Your task to perform on an android device: Go to accessibility settings Image 0: 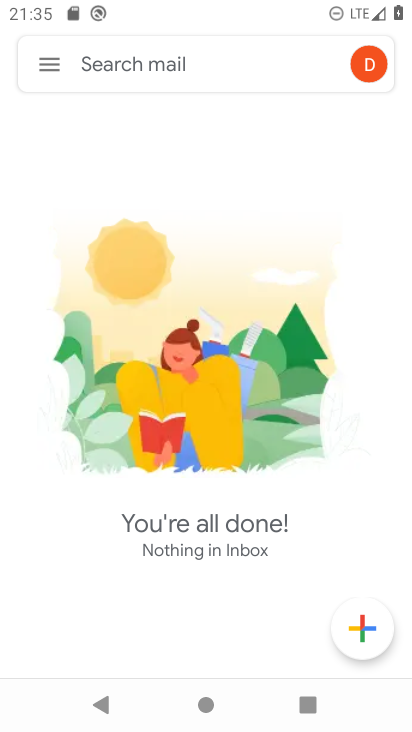
Step 0: press home button
Your task to perform on an android device: Go to accessibility settings Image 1: 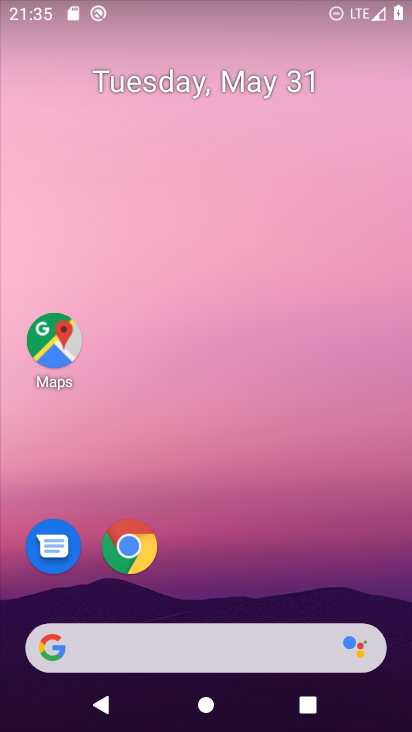
Step 1: drag from (397, 698) to (340, 87)
Your task to perform on an android device: Go to accessibility settings Image 2: 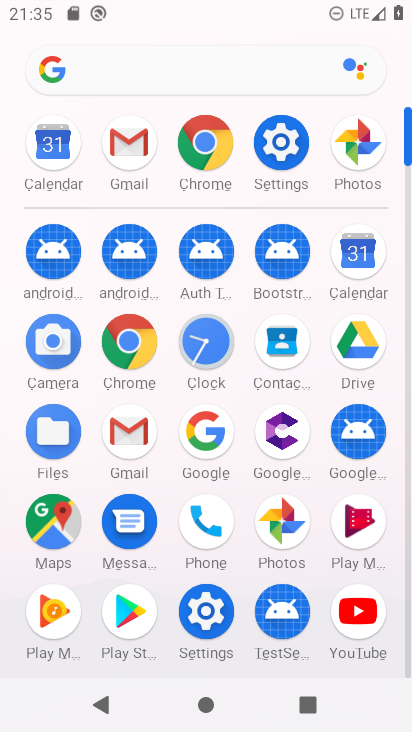
Step 2: click (288, 156)
Your task to perform on an android device: Go to accessibility settings Image 3: 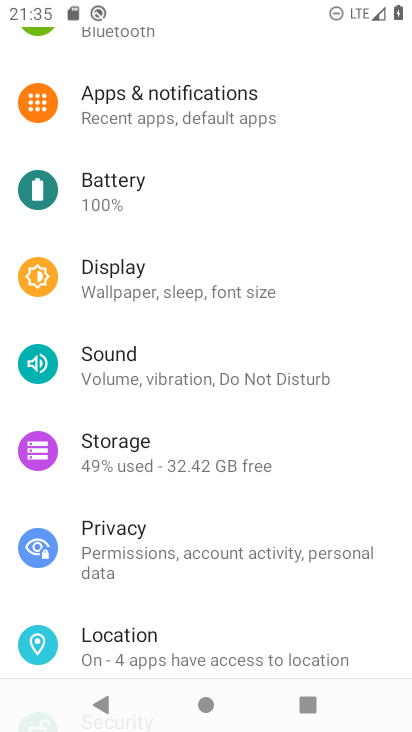
Step 3: drag from (256, 619) to (268, 229)
Your task to perform on an android device: Go to accessibility settings Image 4: 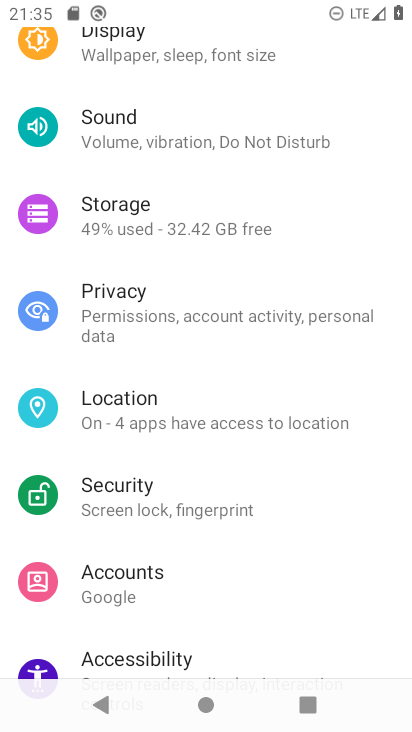
Step 4: click (105, 650)
Your task to perform on an android device: Go to accessibility settings Image 5: 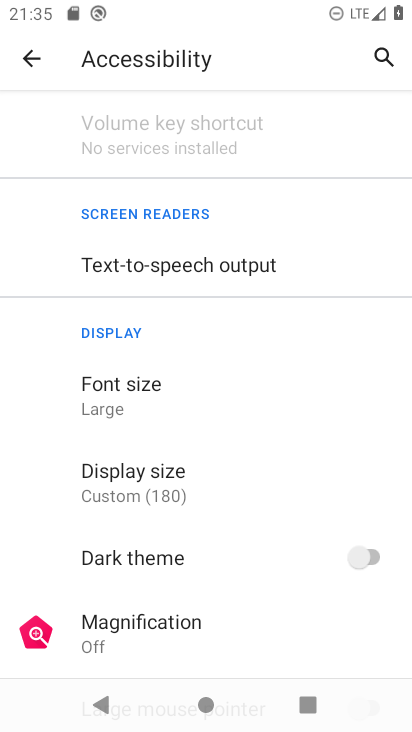
Step 5: task complete